Your task to perform on an android device: Open Google Maps and go to "Timeline" Image 0: 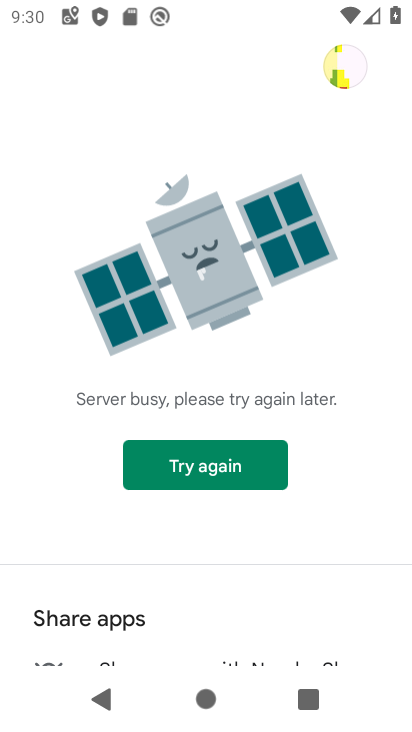
Step 0: press home button
Your task to perform on an android device: Open Google Maps and go to "Timeline" Image 1: 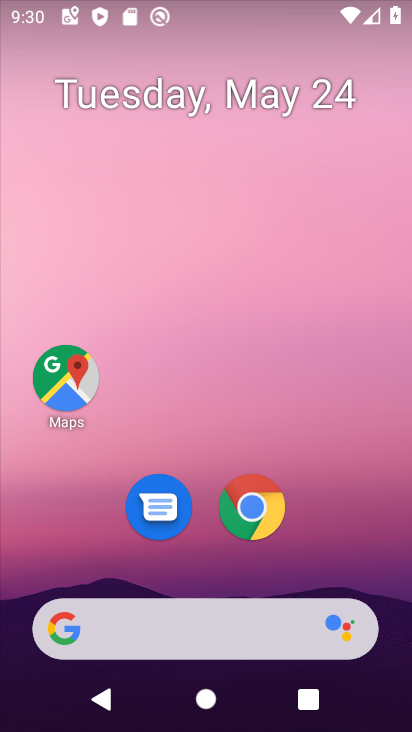
Step 1: click (65, 400)
Your task to perform on an android device: Open Google Maps and go to "Timeline" Image 2: 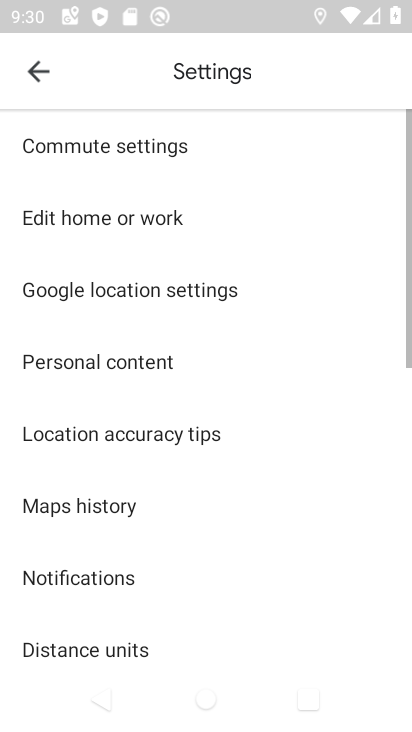
Step 2: press back button
Your task to perform on an android device: Open Google Maps and go to "Timeline" Image 3: 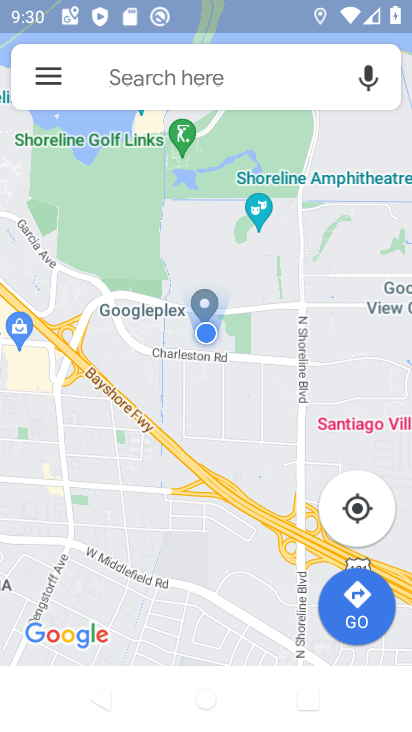
Step 3: click (57, 74)
Your task to perform on an android device: Open Google Maps and go to "Timeline" Image 4: 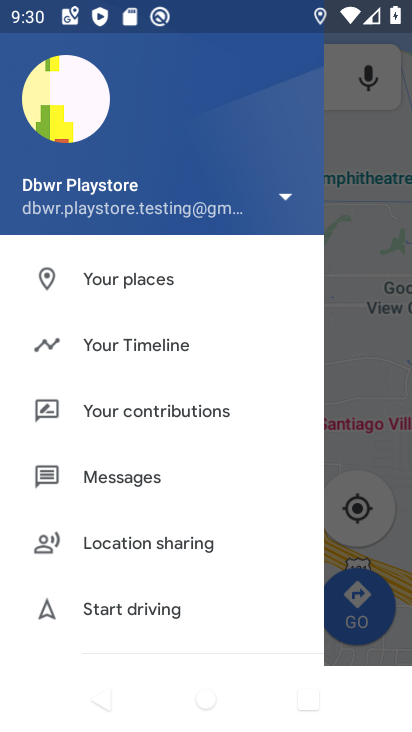
Step 4: click (182, 346)
Your task to perform on an android device: Open Google Maps and go to "Timeline" Image 5: 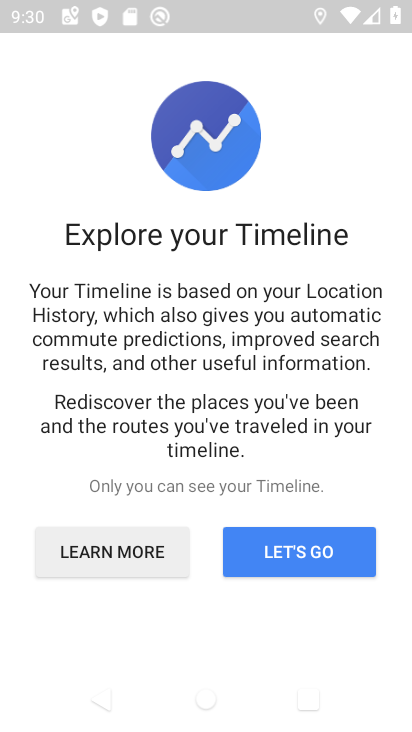
Step 5: click (318, 559)
Your task to perform on an android device: Open Google Maps and go to "Timeline" Image 6: 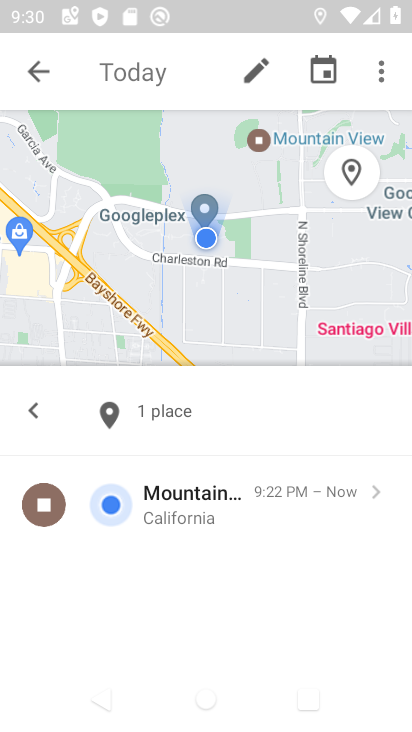
Step 6: task complete